Your task to perform on an android device: check google app version Image 0: 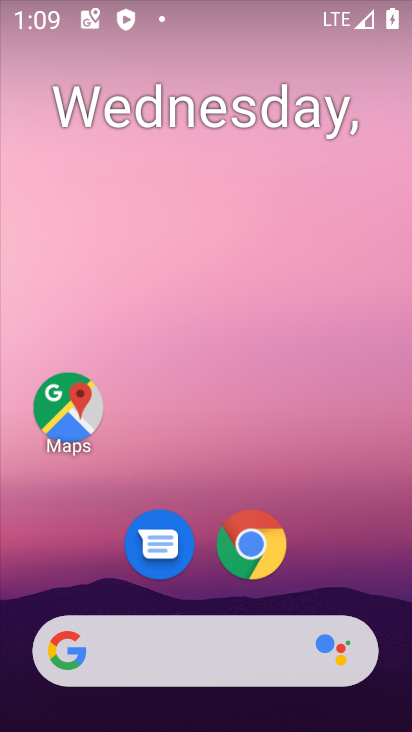
Step 0: drag from (399, 655) to (350, 52)
Your task to perform on an android device: check google app version Image 1: 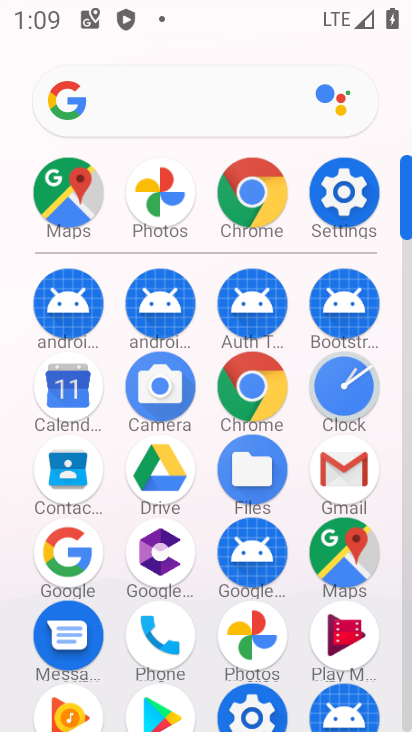
Step 1: click (59, 545)
Your task to perform on an android device: check google app version Image 2: 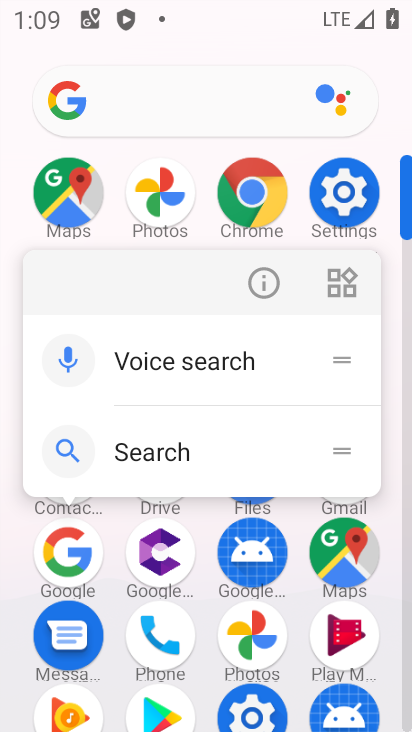
Step 2: click (259, 279)
Your task to perform on an android device: check google app version Image 3: 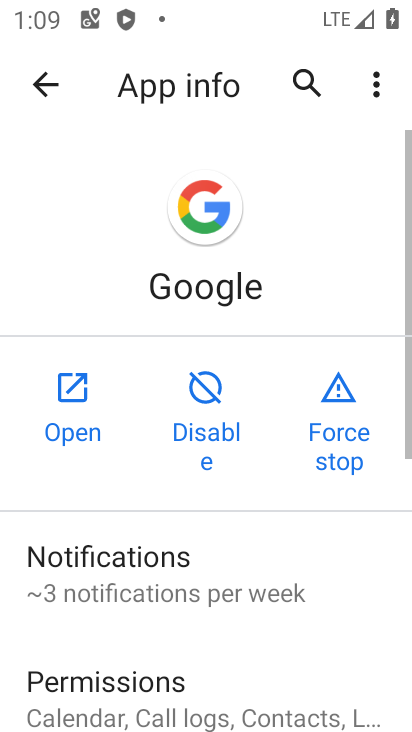
Step 3: drag from (250, 632) to (261, 11)
Your task to perform on an android device: check google app version Image 4: 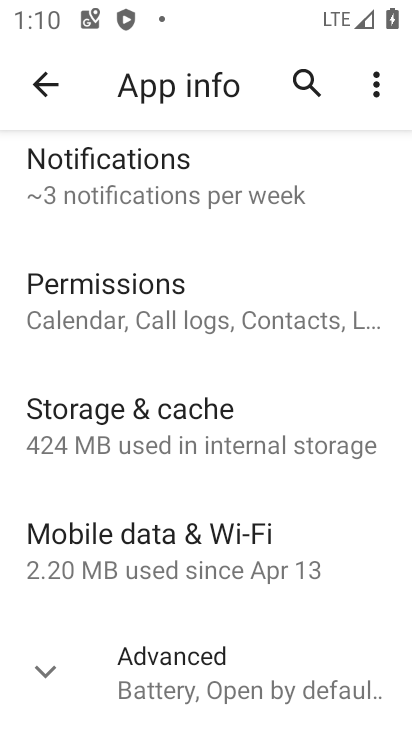
Step 4: click (67, 684)
Your task to perform on an android device: check google app version Image 5: 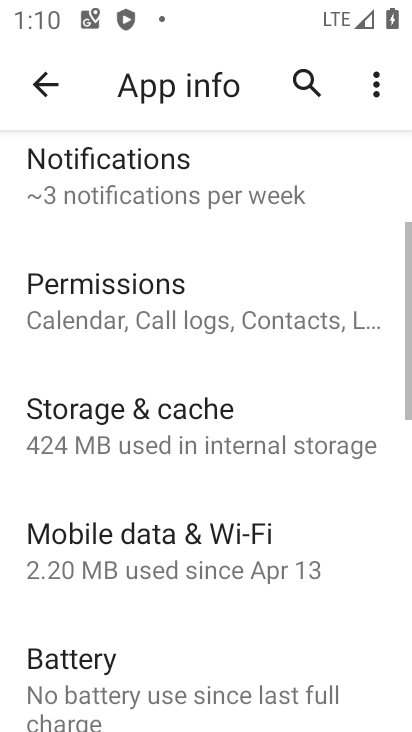
Step 5: task complete